Your task to perform on an android device: toggle translation in the chrome app Image 0: 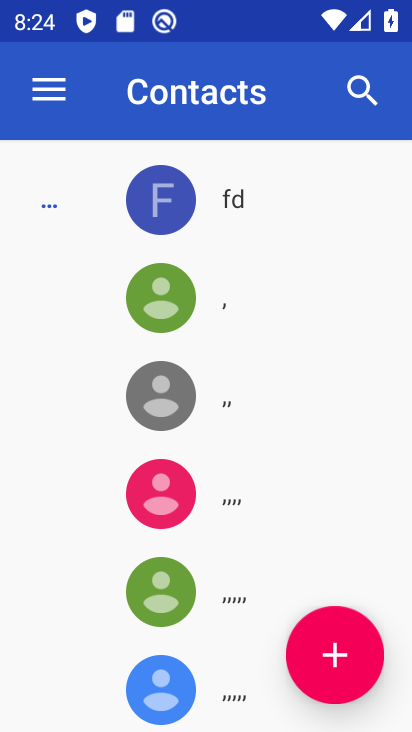
Step 0: press home button
Your task to perform on an android device: toggle translation in the chrome app Image 1: 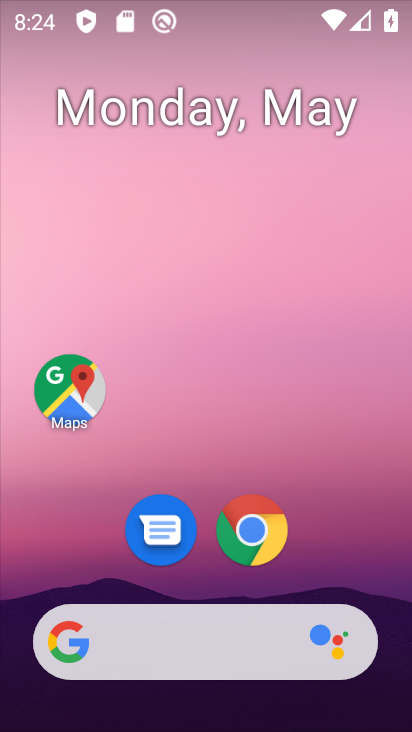
Step 1: click (269, 542)
Your task to perform on an android device: toggle translation in the chrome app Image 2: 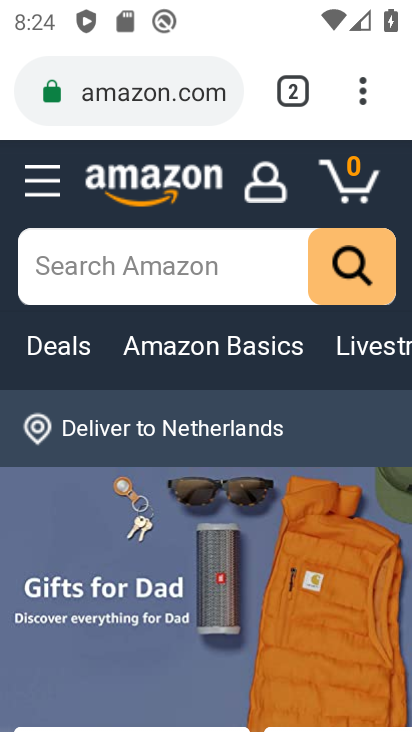
Step 2: click (371, 112)
Your task to perform on an android device: toggle translation in the chrome app Image 3: 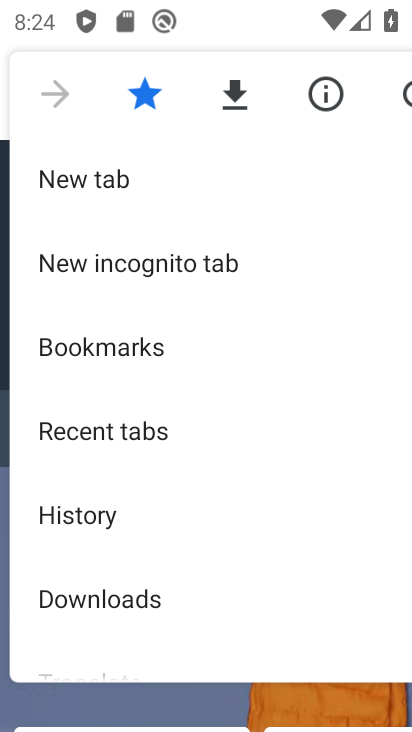
Step 3: drag from (232, 597) to (190, 82)
Your task to perform on an android device: toggle translation in the chrome app Image 4: 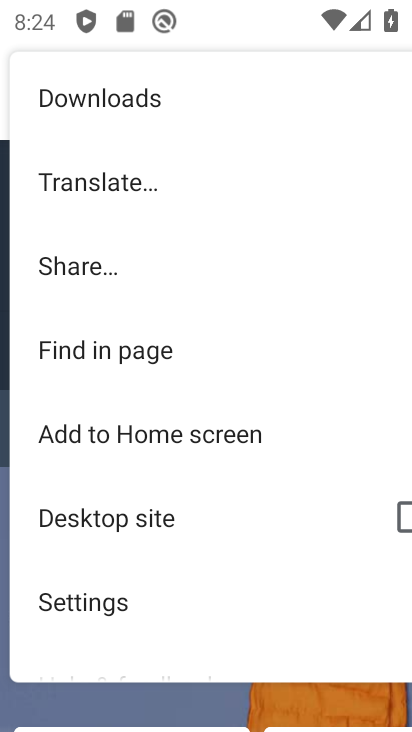
Step 4: click (91, 621)
Your task to perform on an android device: toggle translation in the chrome app Image 5: 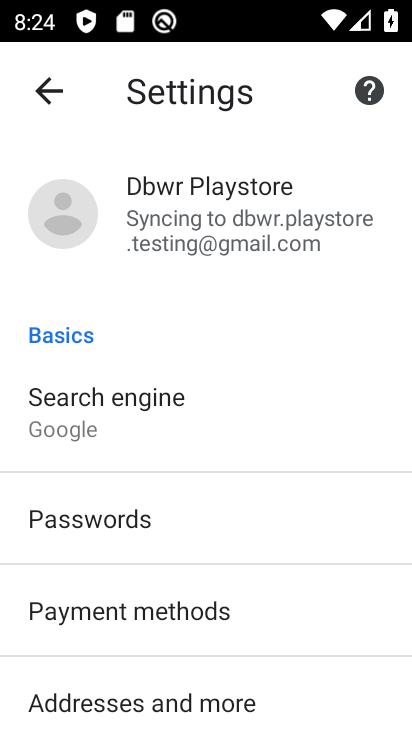
Step 5: drag from (169, 678) to (165, 245)
Your task to perform on an android device: toggle translation in the chrome app Image 6: 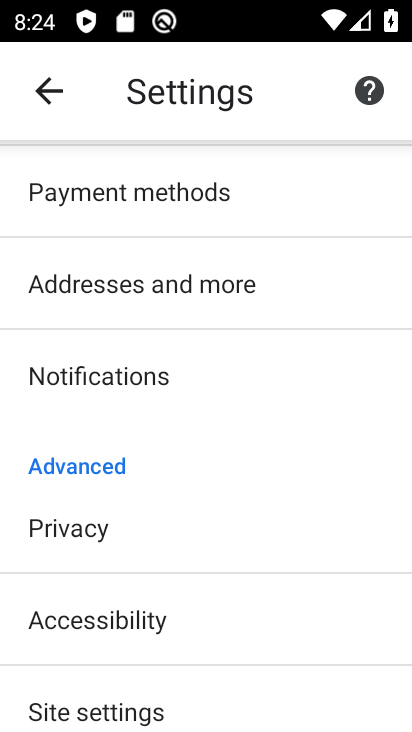
Step 6: drag from (226, 686) to (208, 345)
Your task to perform on an android device: toggle translation in the chrome app Image 7: 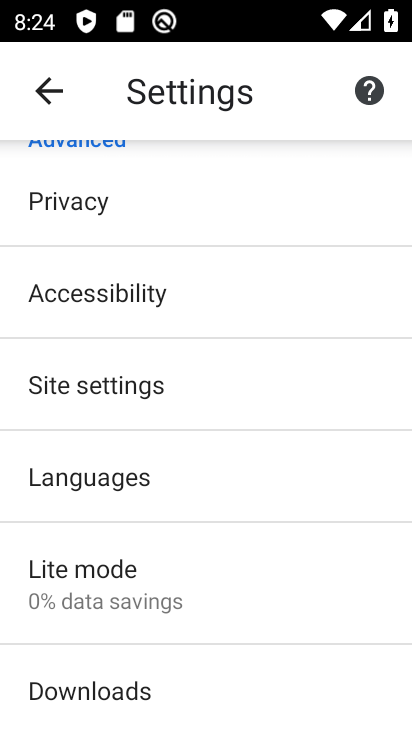
Step 7: click (170, 487)
Your task to perform on an android device: toggle translation in the chrome app Image 8: 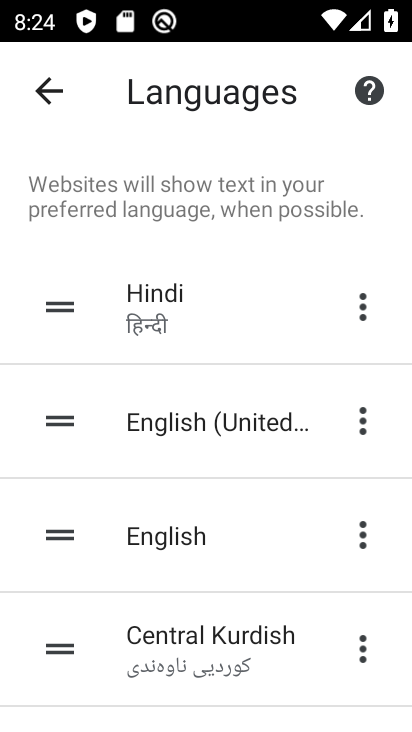
Step 8: drag from (238, 700) to (181, 291)
Your task to perform on an android device: toggle translation in the chrome app Image 9: 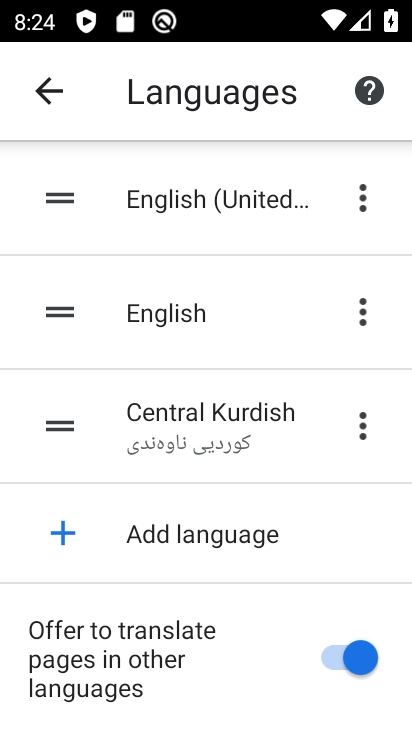
Step 9: click (332, 660)
Your task to perform on an android device: toggle translation in the chrome app Image 10: 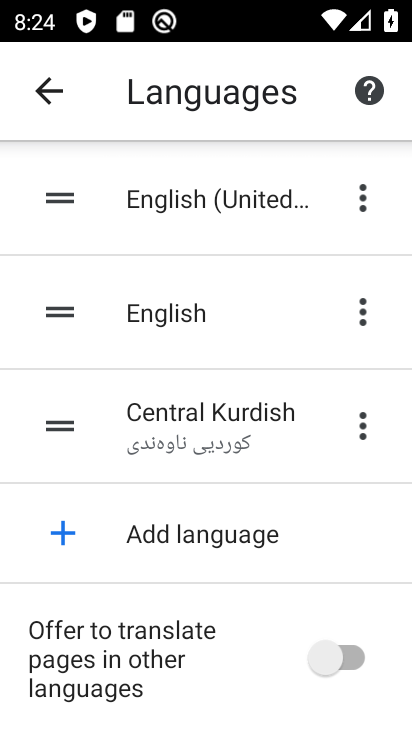
Step 10: task complete